Your task to perform on an android device: empty trash in google photos Image 0: 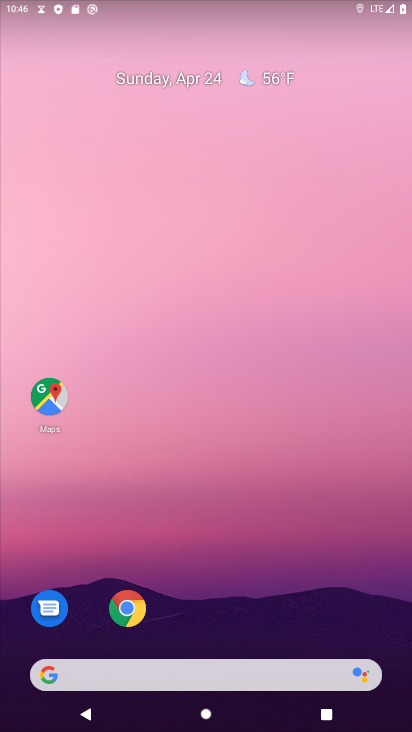
Step 0: drag from (203, 654) to (132, 17)
Your task to perform on an android device: empty trash in google photos Image 1: 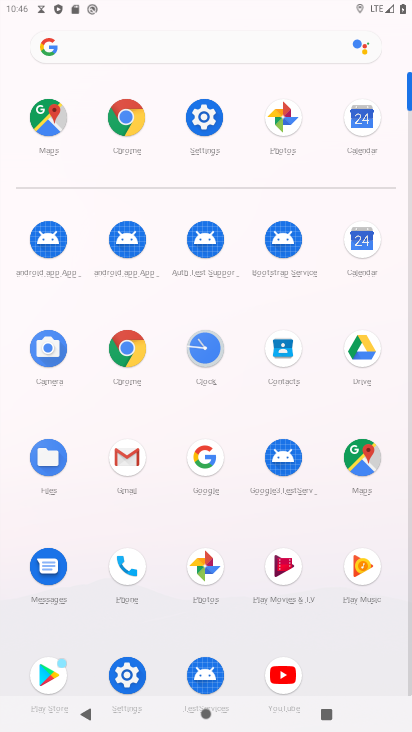
Step 1: click (195, 566)
Your task to perform on an android device: empty trash in google photos Image 2: 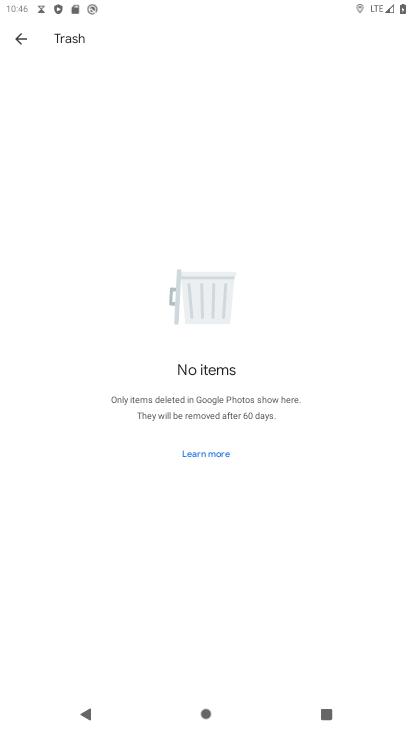
Step 2: task complete